Your task to perform on an android device: turn off translation in the chrome app Image 0: 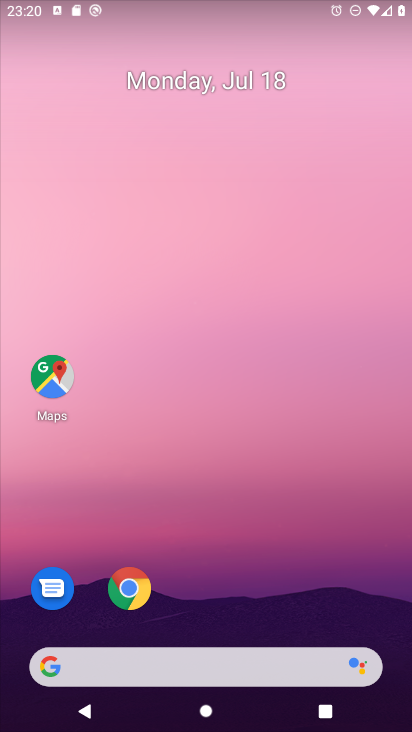
Step 0: click (127, 587)
Your task to perform on an android device: turn off translation in the chrome app Image 1: 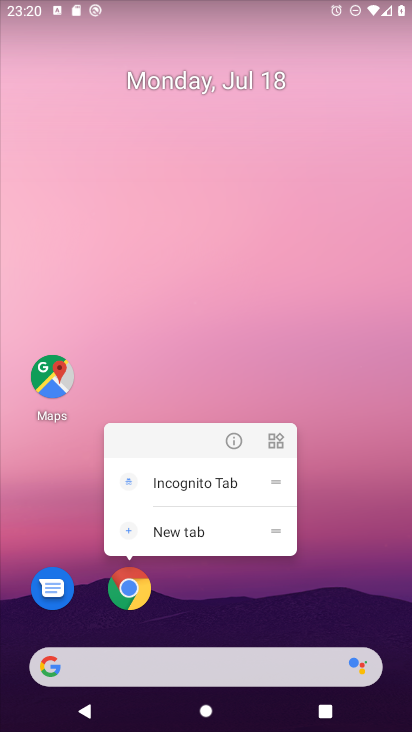
Step 1: click (127, 585)
Your task to perform on an android device: turn off translation in the chrome app Image 2: 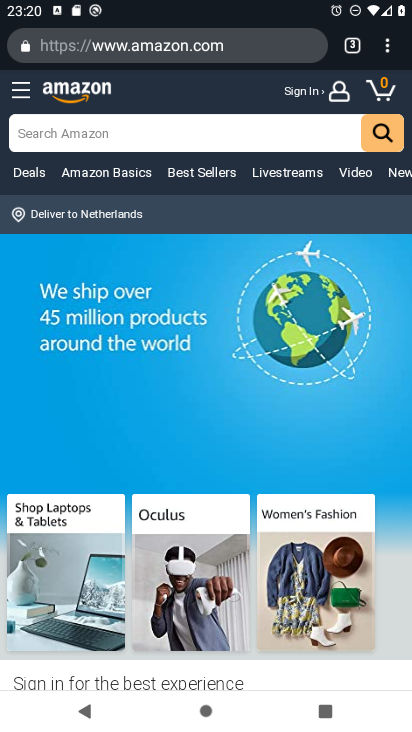
Step 2: click (386, 52)
Your task to perform on an android device: turn off translation in the chrome app Image 3: 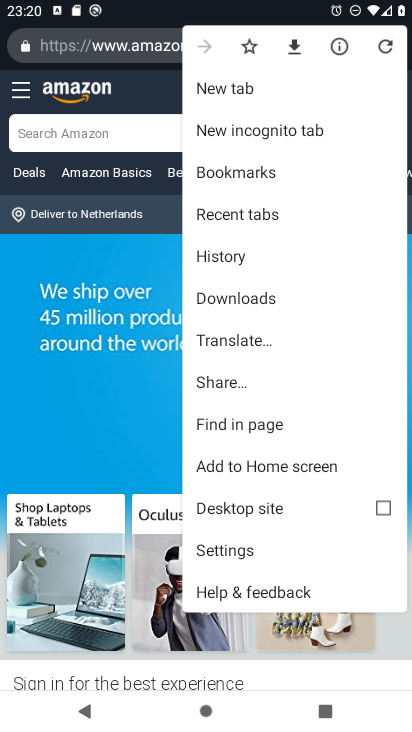
Step 3: click (232, 552)
Your task to perform on an android device: turn off translation in the chrome app Image 4: 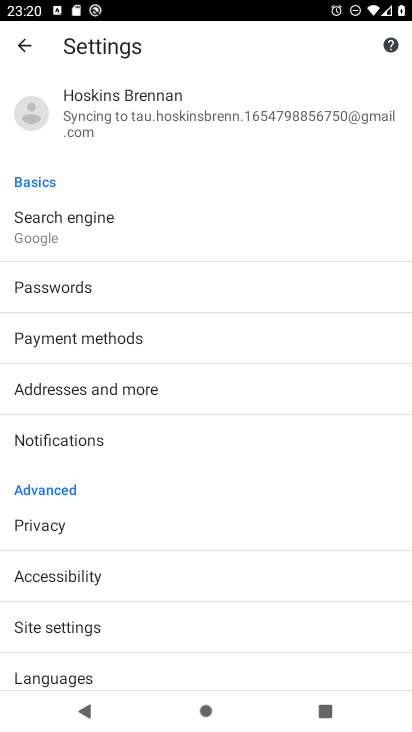
Step 4: drag from (160, 626) to (181, 316)
Your task to perform on an android device: turn off translation in the chrome app Image 5: 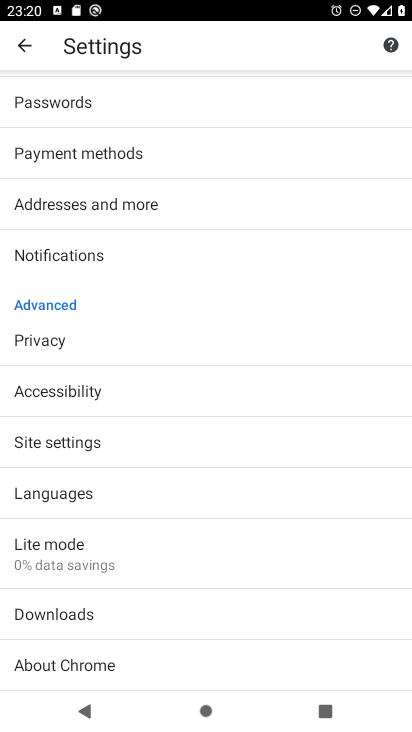
Step 5: click (62, 503)
Your task to perform on an android device: turn off translation in the chrome app Image 6: 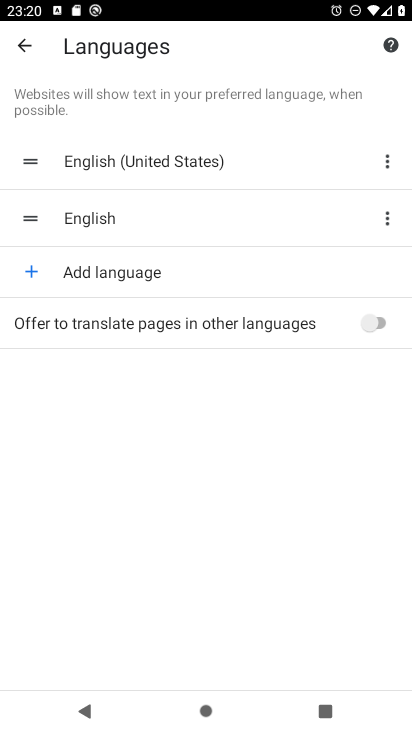
Step 6: task complete